Your task to perform on an android device: turn off notifications in google photos Image 0: 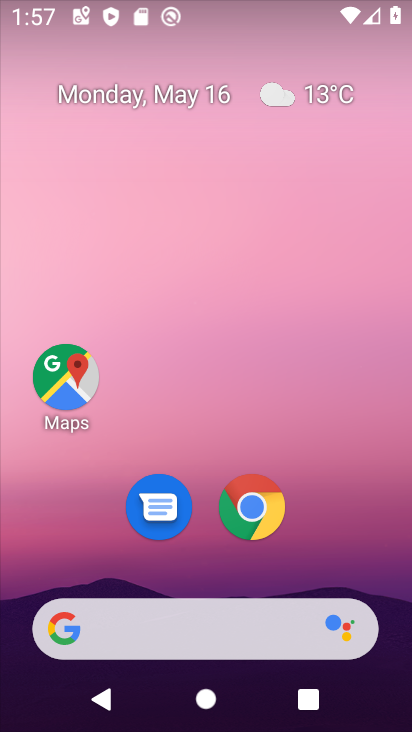
Step 0: drag from (371, 561) to (377, 77)
Your task to perform on an android device: turn off notifications in google photos Image 1: 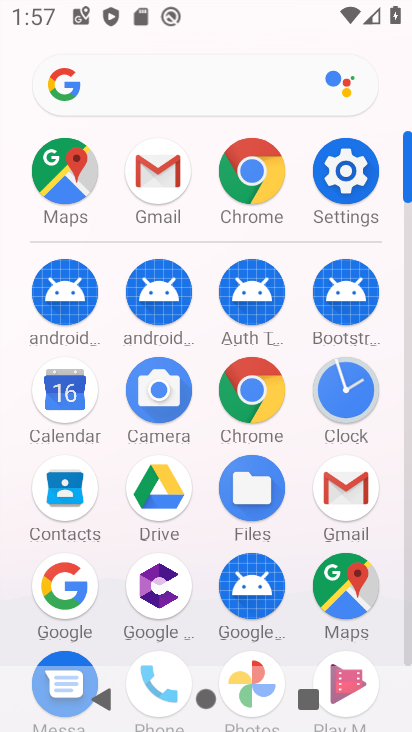
Step 1: drag from (198, 643) to (200, 296)
Your task to perform on an android device: turn off notifications in google photos Image 2: 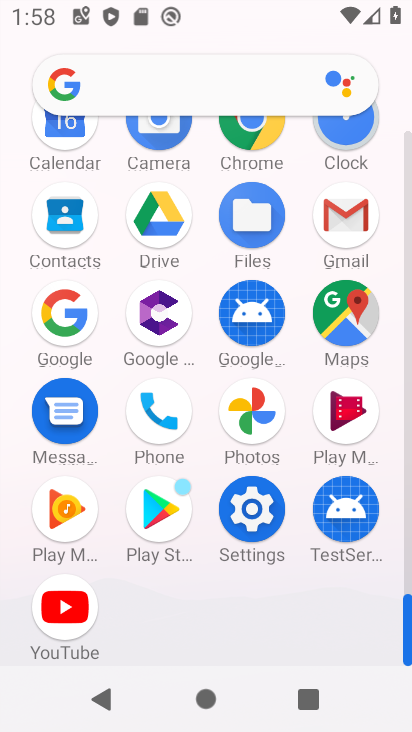
Step 2: click (249, 417)
Your task to perform on an android device: turn off notifications in google photos Image 3: 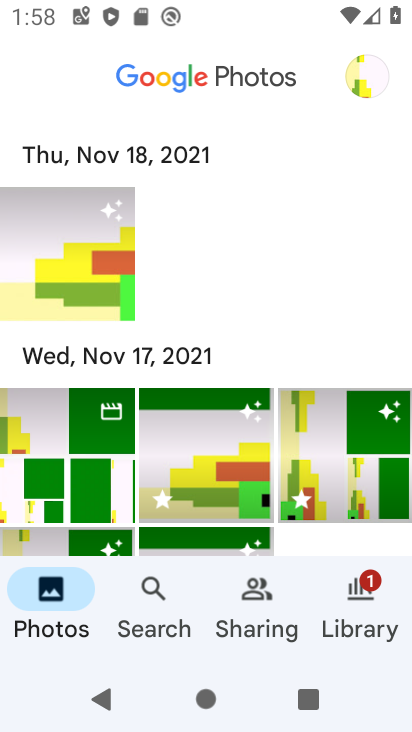
Step 3: click (360, 78)
Your task to perform on an android device: turn off notifications in google photos Image 4: 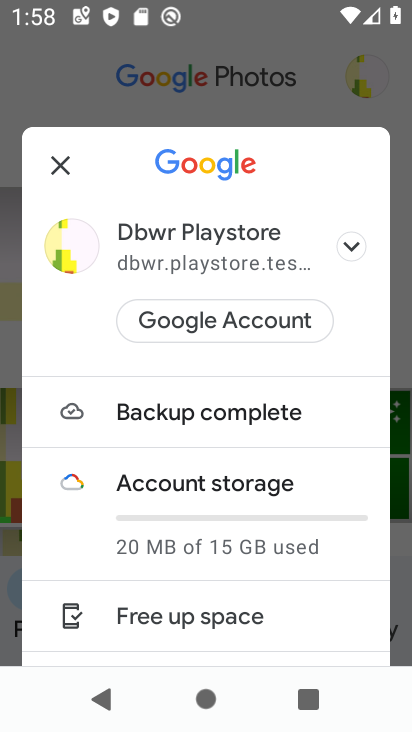
Step 4: drag from (334, 617) to (339, 384)
Your task to perform on an android device: turn off notifications in google photos Image 5: 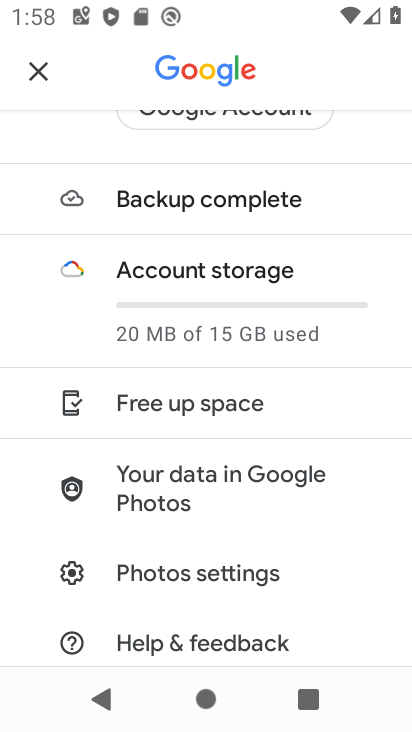
Step 5: click (243, 583)
Your task to perform on an android device: turn off notifications in google photos Image 6: 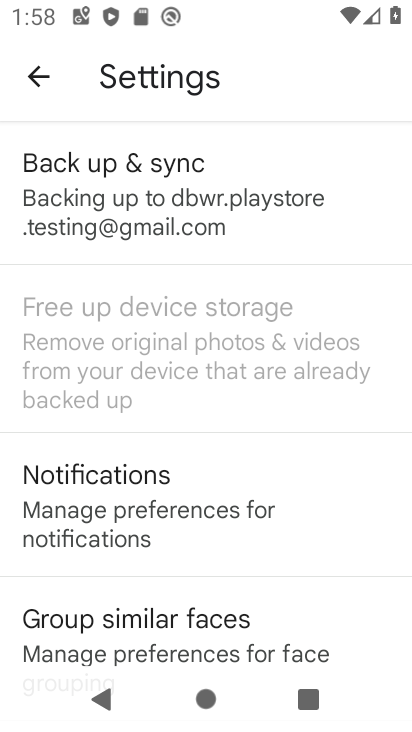
Step 6: drag from (342, 576) to (342, 445)
Your task to perform on an android device: turn off notifications in google photos Image 7: 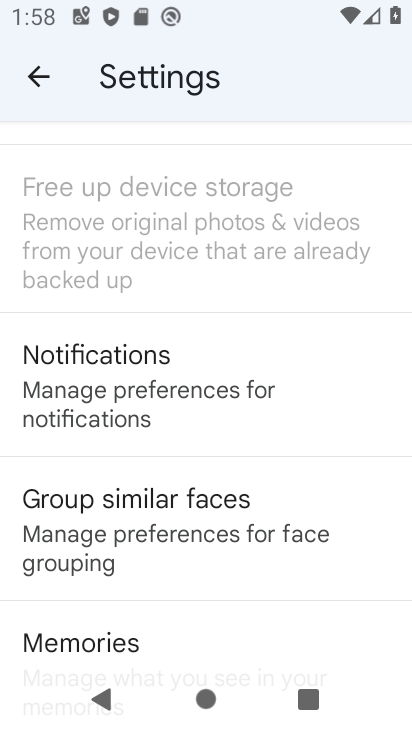
Step 7: drag from (349, 632) to (349, 518)
Your task to perform on an android device: turn off notifications in google photos Image 8: 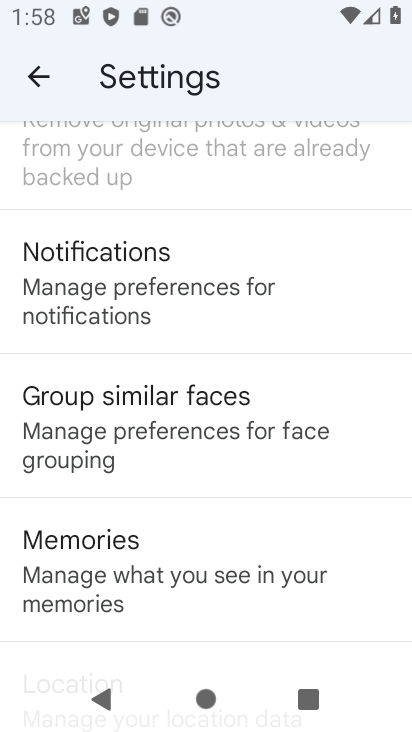
Step 8: click (222, 301)
Your task to perform on an android device: turn off notifications in google photos Image 9: 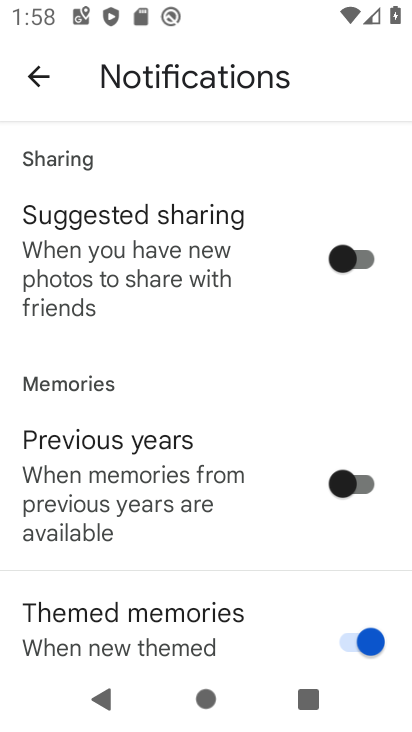
Step 9: drag from (300, 627) to (295, 477)
Your task to perform on an android device: turn off notifications in google photos Image 10: 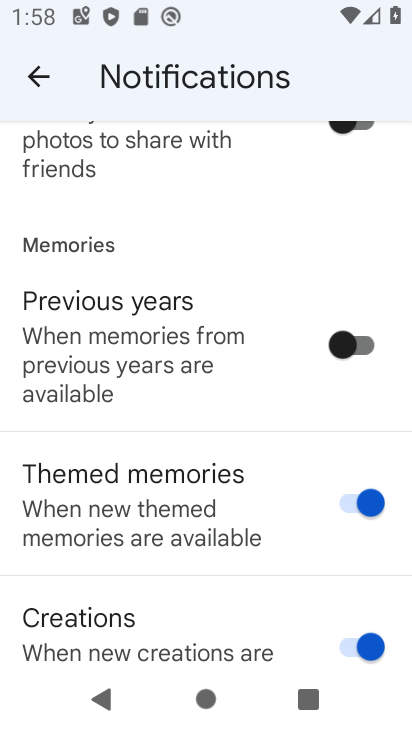
Step 10: drag from (275, 636) to (273, 477)
Your task to perform on an android device: turn off notifications in google photos Image 11: 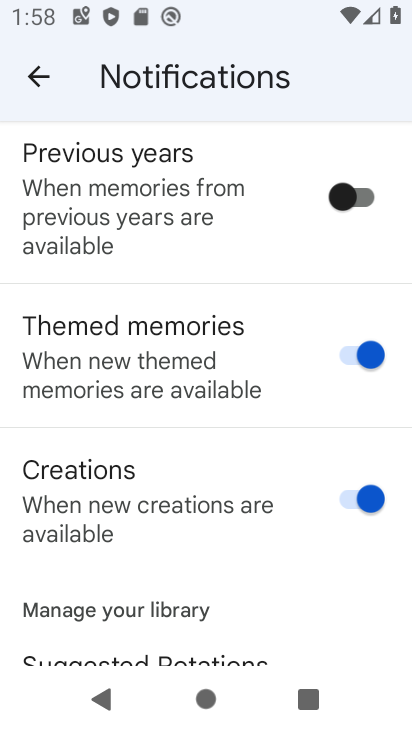
Step 11: drag from (285, 634) to (297, 512)
Your task to perform on an android device: turn off notifications in google photos Image 12: 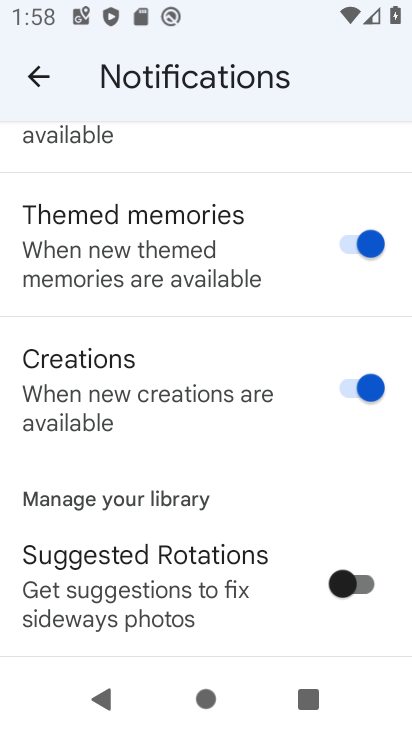
Step 12: drag from (288, 638) to (286, 523)
Your task to perform on an android device: turn off notifications in google photos Image 13: 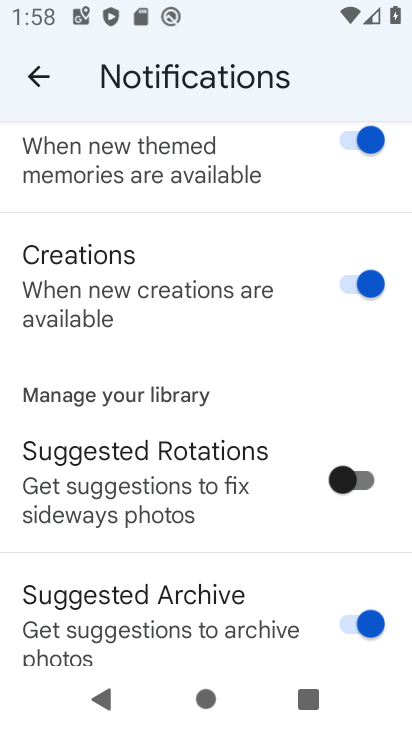
Step 13: drag from (282, 641) to (289, 519)
Your task to perform on an android device: turn off notifications in google photos Image 14: 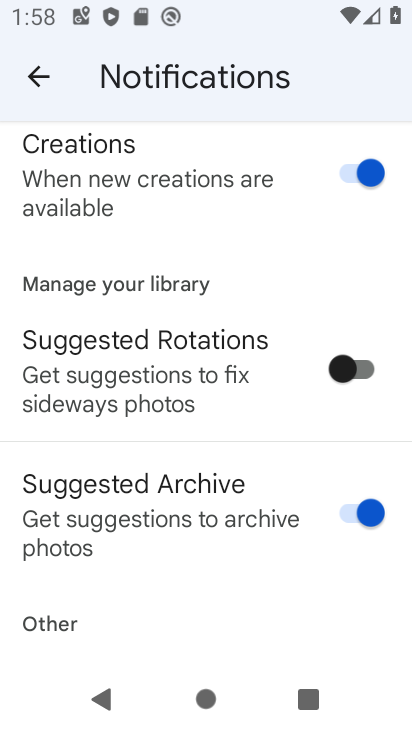
Step 14: drag from (261, 646) to (265, 515)
Your task to perform on an android device: turn off notifications in google photos Image 15: 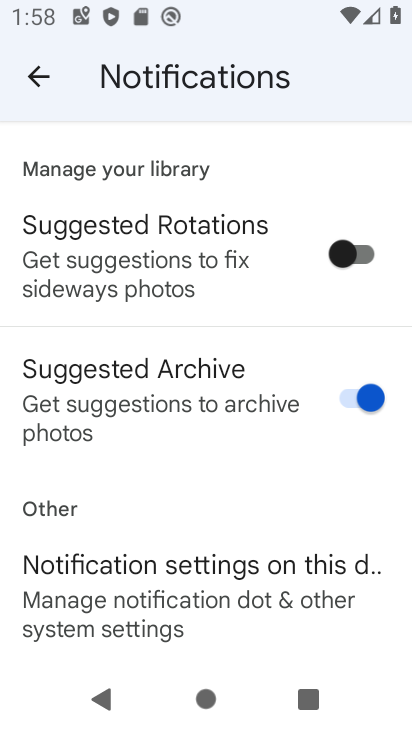
Step 15: drag from (256, 630) to (262, 468)
Your task to perform on an android device: turn off notifications in google photos Image 16: 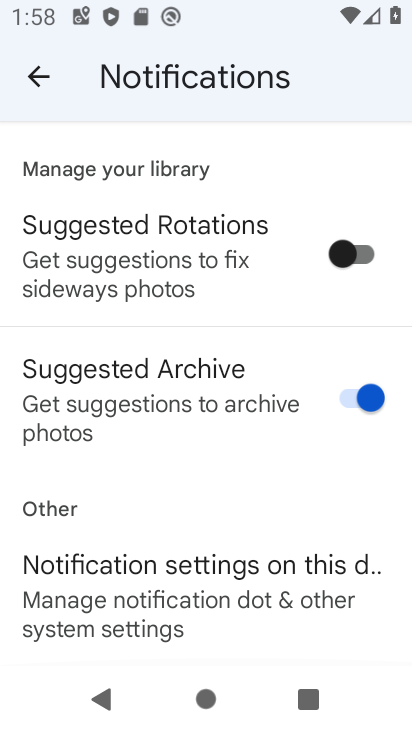
Step 16: click (261, 591)
Your task to perform on an android device: turn off notifications in google photos Image 17: 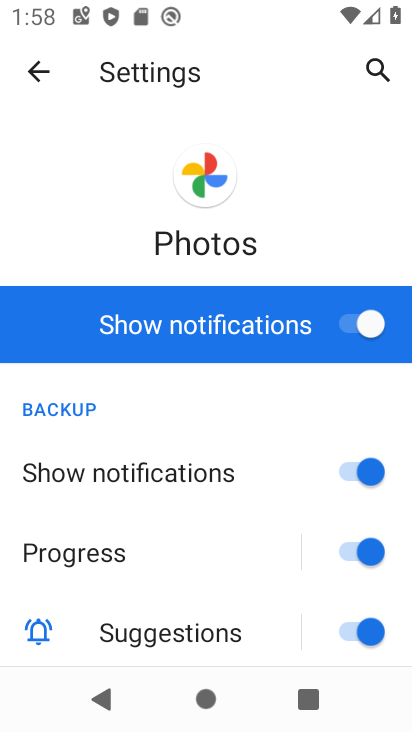
Step 17: click (361, 329)
Your task to perform on an android device: turn off notifications in google photos Image 18: 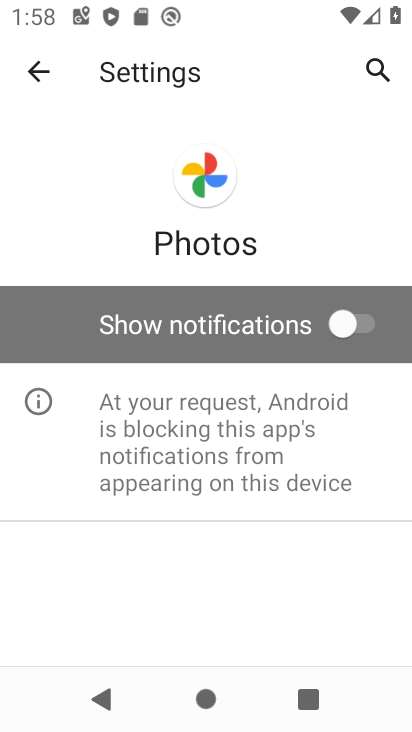
Step 18: task complete